Your task to perform on an android device: open app "Spotify" Image 0: 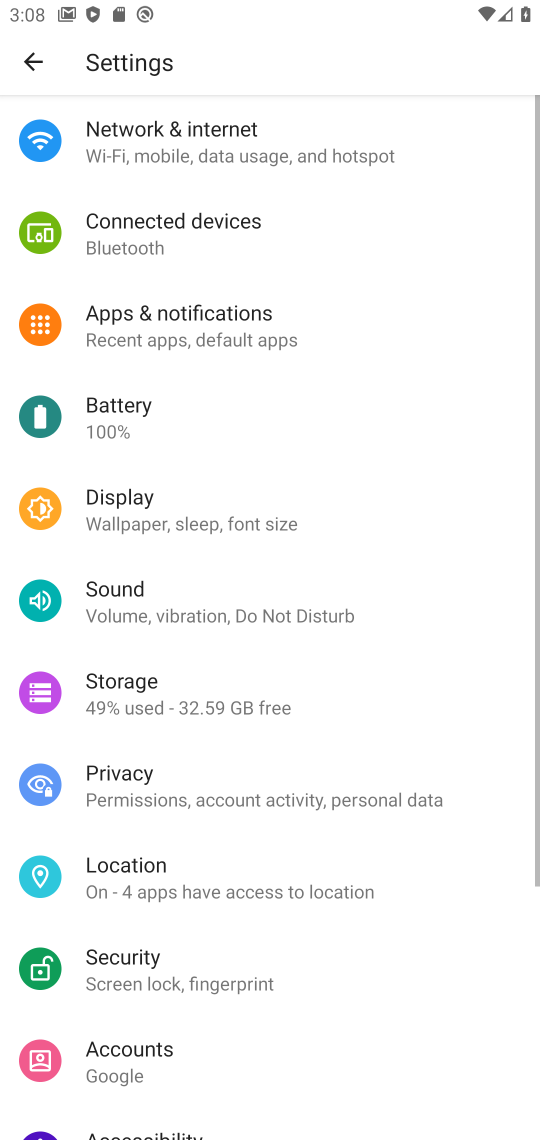
Step 0: press home button
Your task to perform on an android device: open app "Spotify" Image 1: 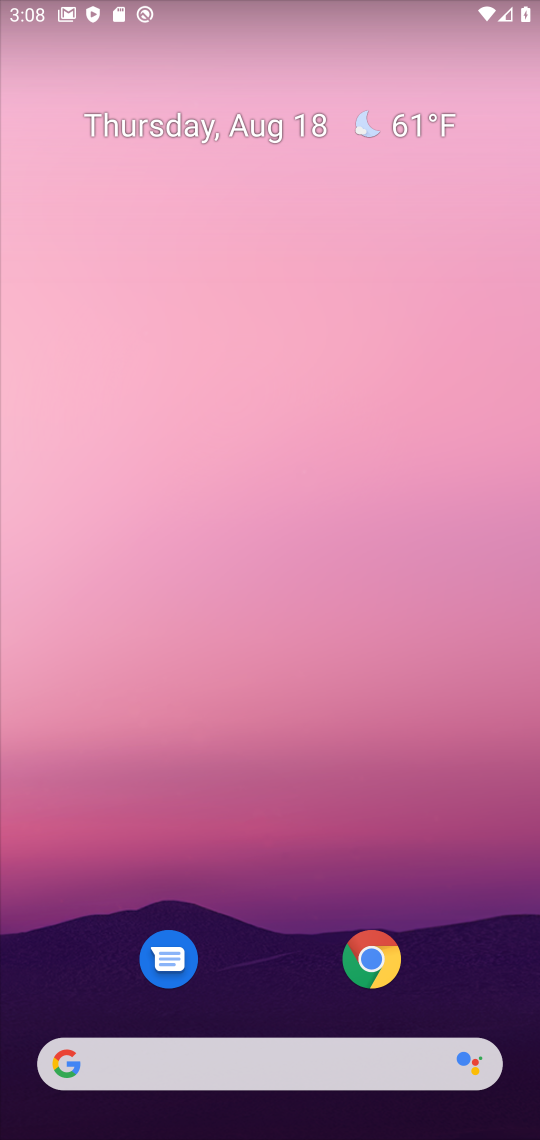
Step 1: task complete